Your task to perform on an android device: move an email to a new category in the gmail app Image 0: 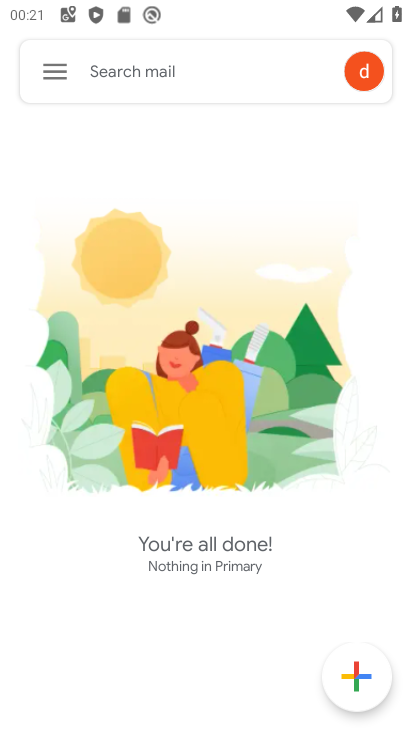
Step 0: press home button
Your task to perform on an android device: move an email to a new category in the gmail app Image 1: 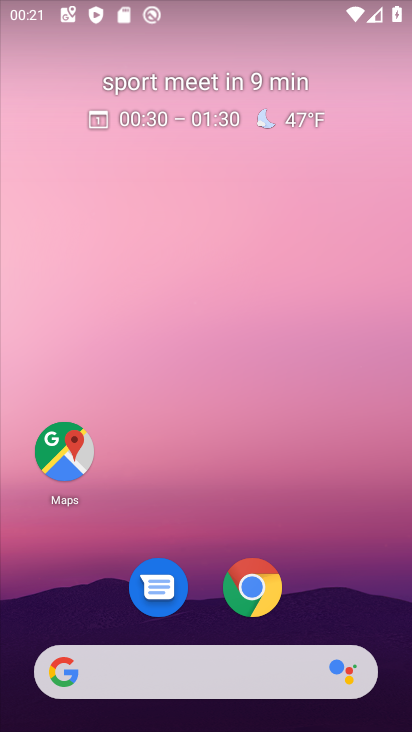
Step 1: drag from (391, 611) to (400, 201)
Your task to perform on an android device: move an email to a new category in the gmail app Image 2: 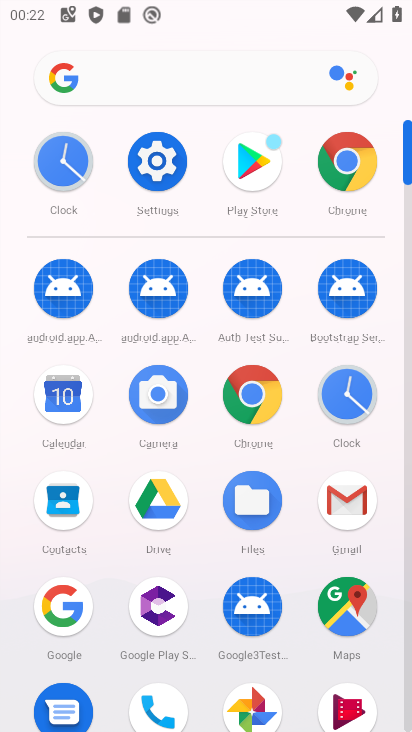
Step 2: click (354, 505)
Your task to perform on an android device: move an email to a new category in the gmail app Image 3: 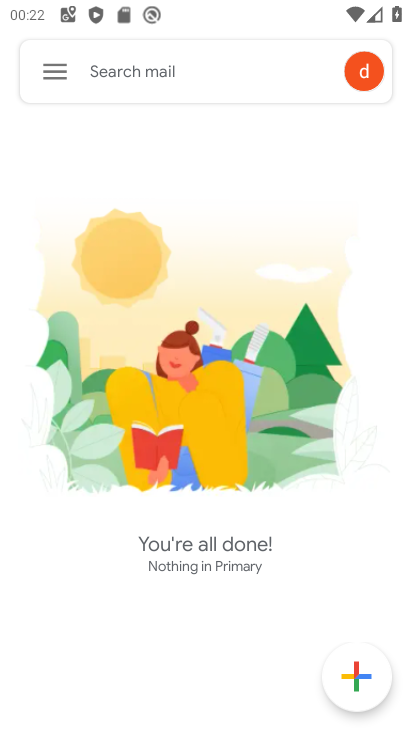
Step 3: click (47, 74)
Your task to perform on an android device: move an email to a new category in the gmail app Image 4: 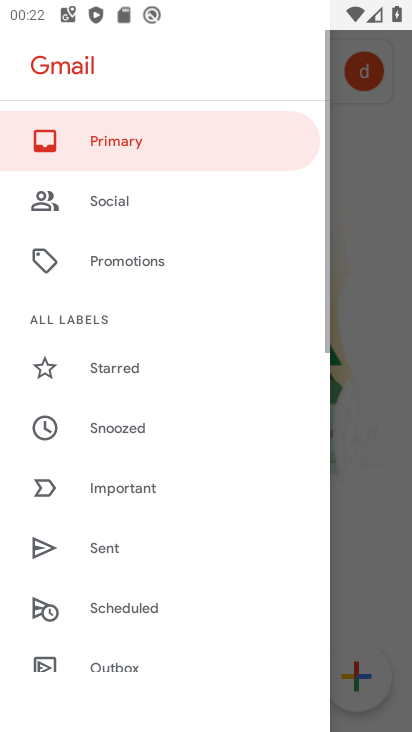
Step 4: click (149, 145)
Your task to perform on an android device: move an email to a new category in the gmail app Image 5: 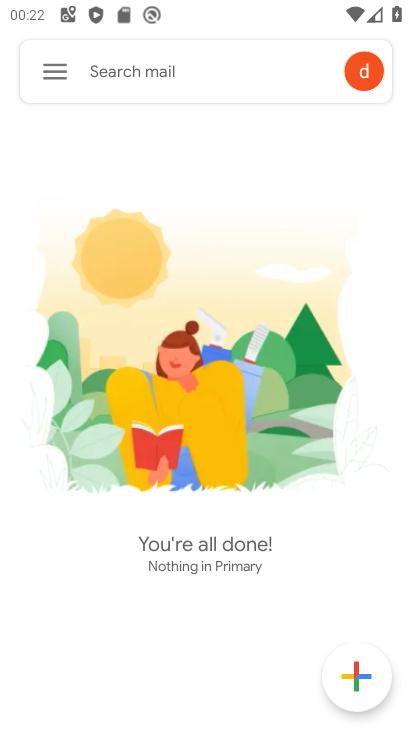
Step 5: task complete